Your task to perform on an android device: Do I have any events today? Image 0: 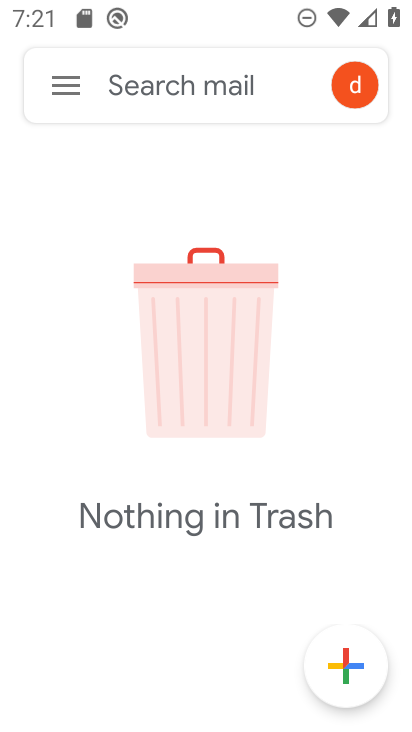
Step 0: press home button
Your task to perform on an android device: Do I have any events today? Image 1: 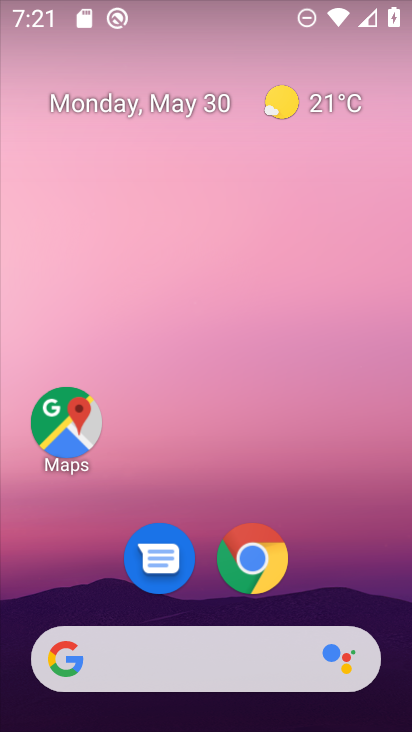
Step 1: drag from (321, 538) to (169, 78)
Your task to perform on an android device: Do I have any events today? Image 2: 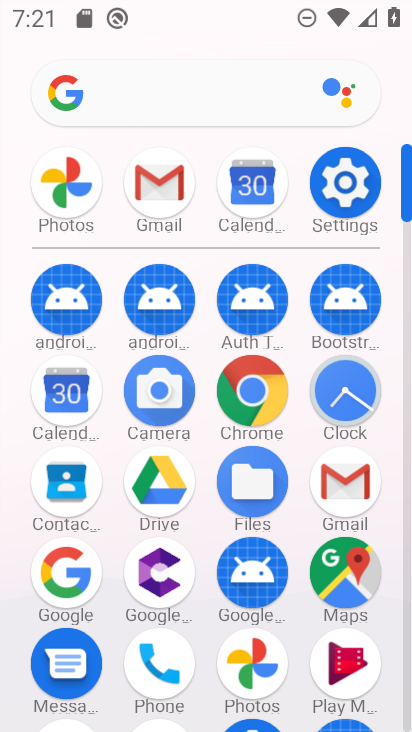
Step 2: click (73, 398)
Your task to perform on an android device: Do I have any events today? Image 3: 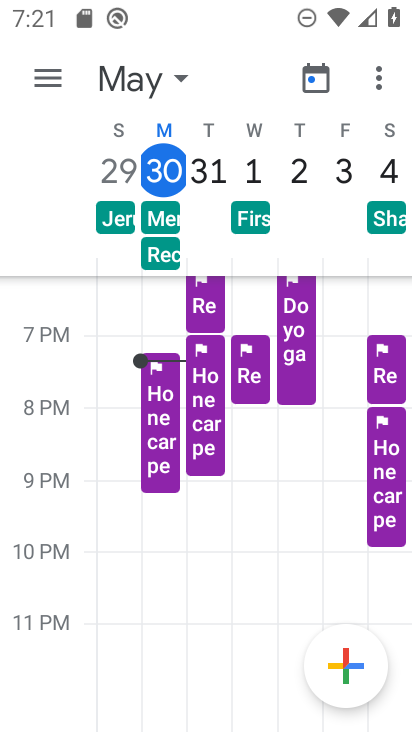
Step 3: drag from (245, 483) to (211, 263)
Your task to perform on an android device: Do I have any events today? Image 4: 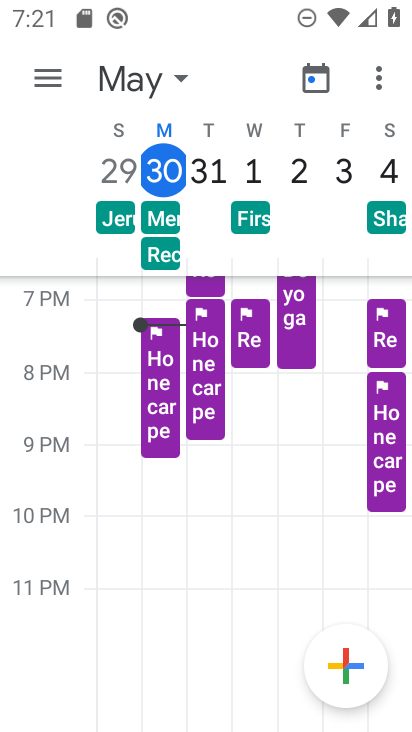
Step 4: click (165, 168)
Your task to perform on an android device: Do I have any events today? Image 5: 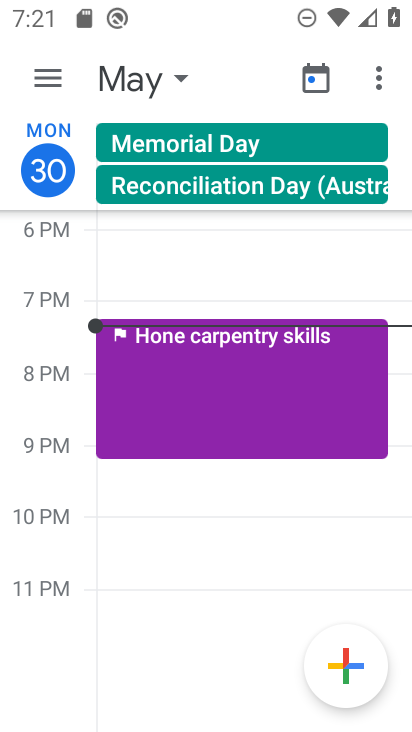
Step 5: task complete